Your task to perform on an android device: Open Google Chrome Image 0: 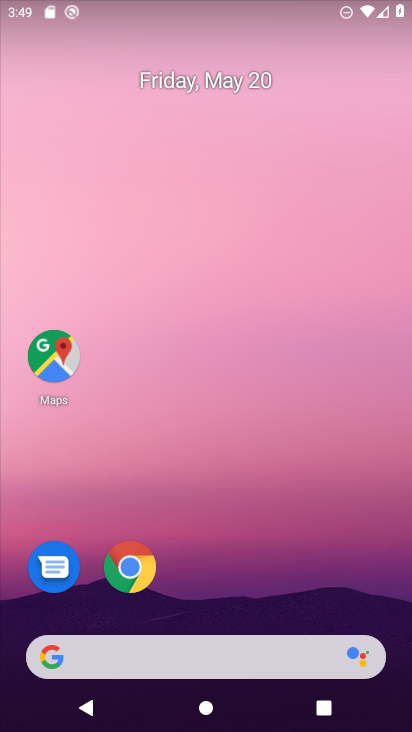
Step 0: click (131, 568)
Your task to perform on an android device: Open Google Chrome Image 1: 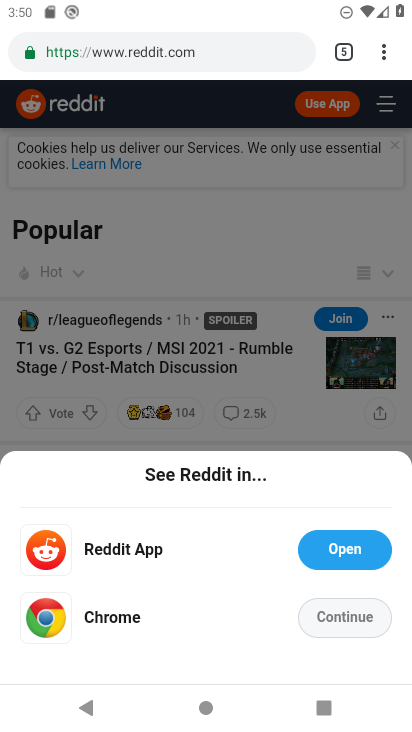
Step 1: task complete